Your task to perform on an android device: turn on location history Image 0: 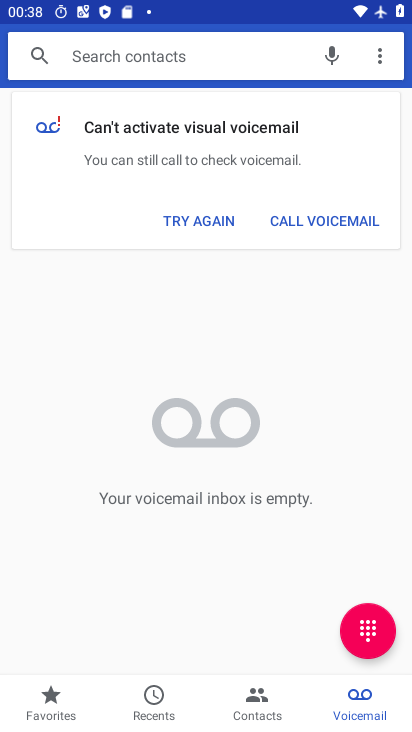
Step 0: press home button
Your task to perform on an android device: turn on location history Image 1: 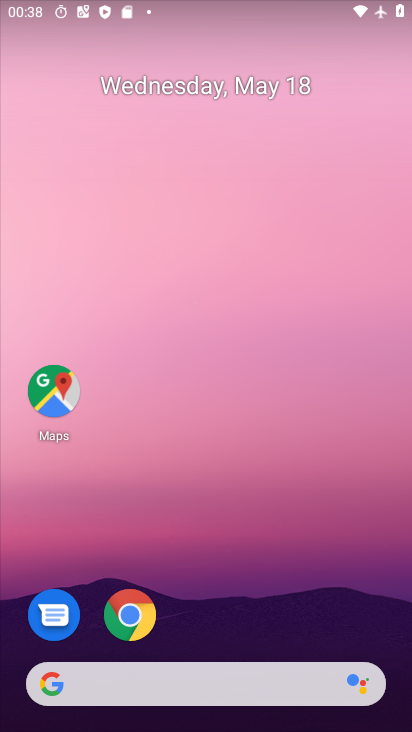
Step 1: drag from (228, 626) to (172, 297)
Your task to perform on an android device: turn on location history Image 2: 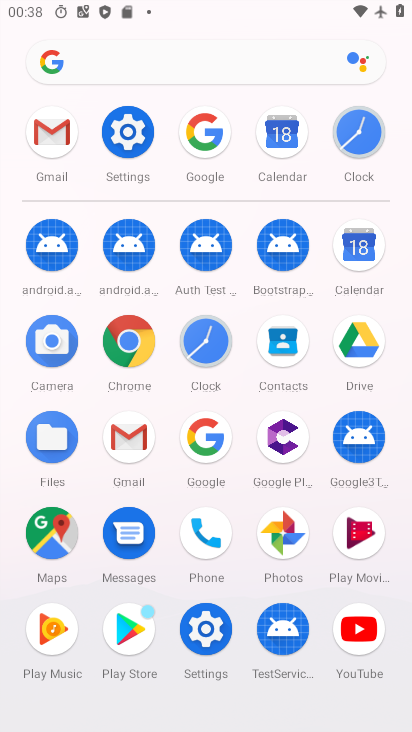
Step 2: click (155, 132)
Your task to perform on an android device: turn on location history Image 3: 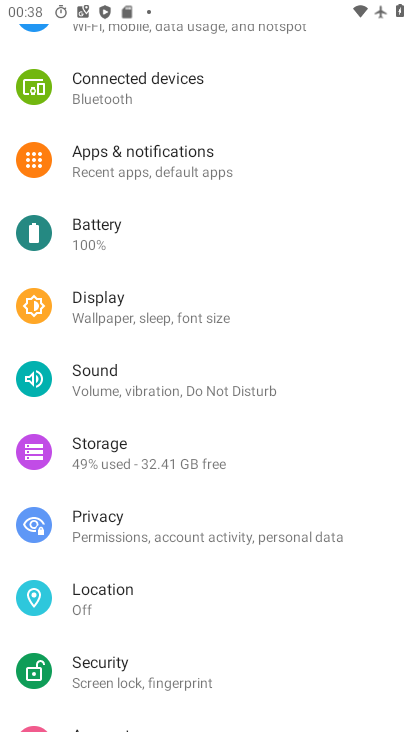
Step 3: click (192, 593)
Your task to perform on an android device: turn on location history Image 4: 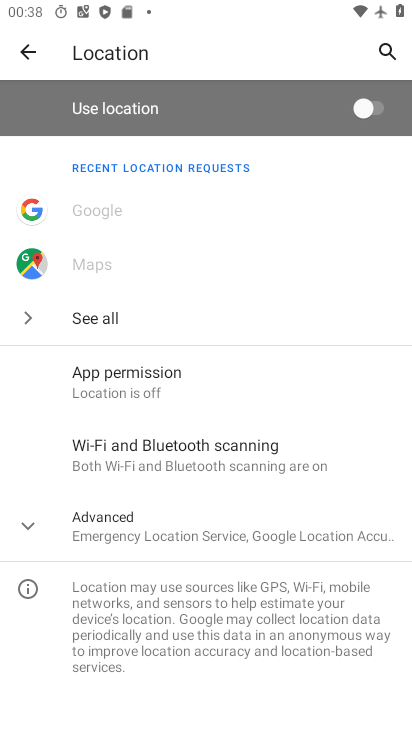
Step 4: click (169, 535)
Your task to perform on an android device: turn on location history Image 5: 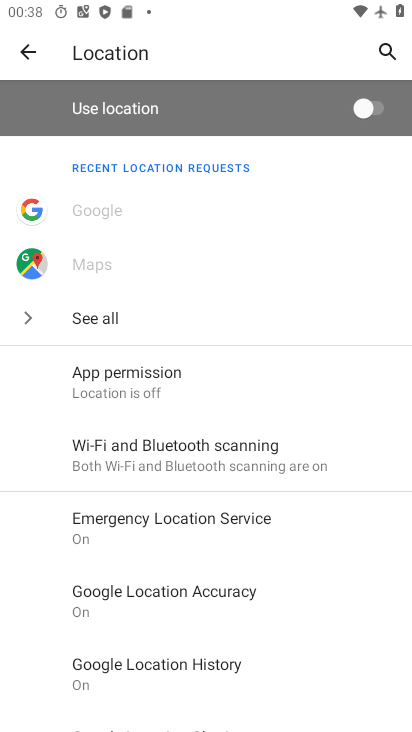
Step 5: click (192, 664)
Your task to perform on an android device: turn on location history Image 6: 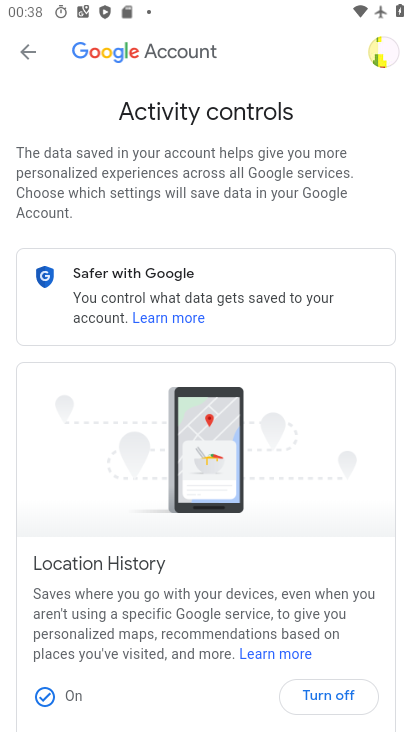
Step 6: task complete